Your task to perform on an android device: turn off notifications in google photos Image 0: 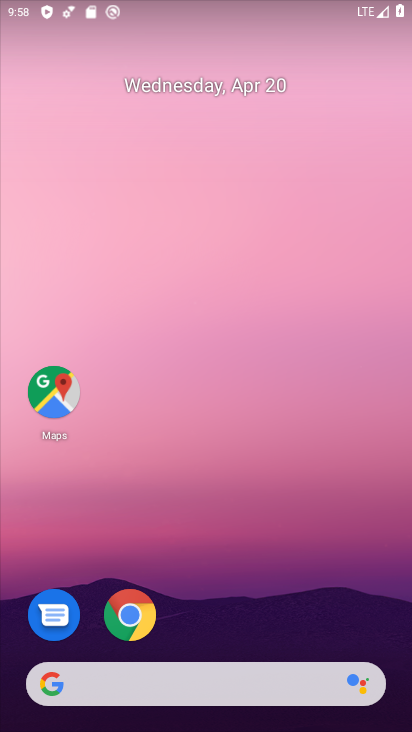
Step 0: drag from (228, 530) to (240, 16)
Your task to perform on an android device: turn off notifications in google photos Image 1: 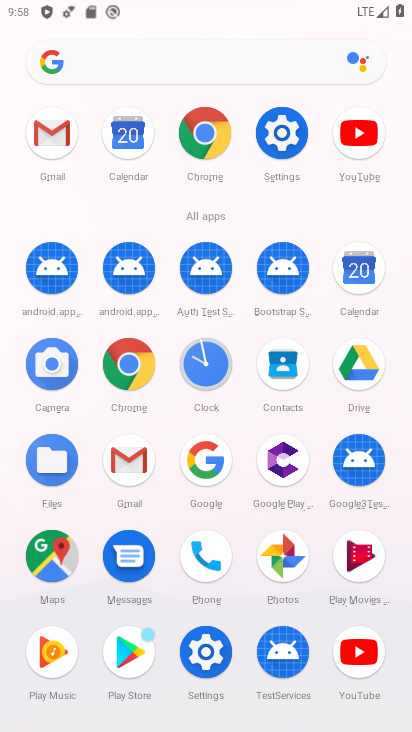
Step 1: click (277, 541)
Your task to perform on an android device: turn off notifications in google photos Image 2: 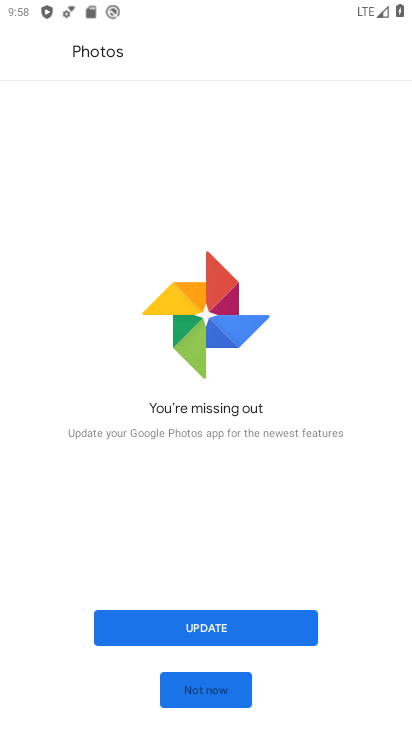
Step 2: click (200, 622)
Your task to perform on an android device: turn off notifications in google photos Image 3: 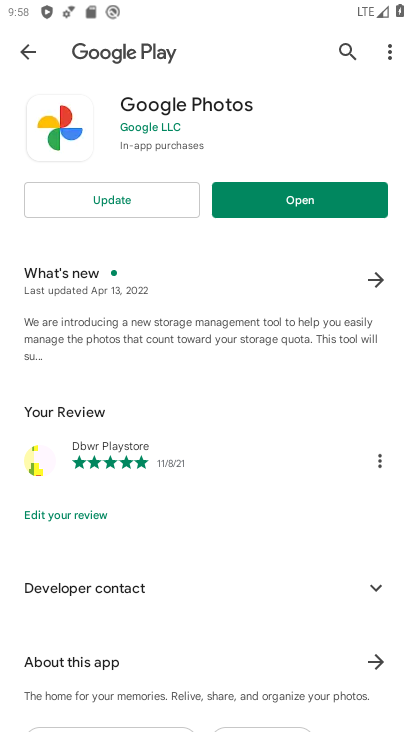
Step 3: drag from (200, 622) to (93, 198)
Your task to perform on an android device: turn off notifications in google photos Image 4: 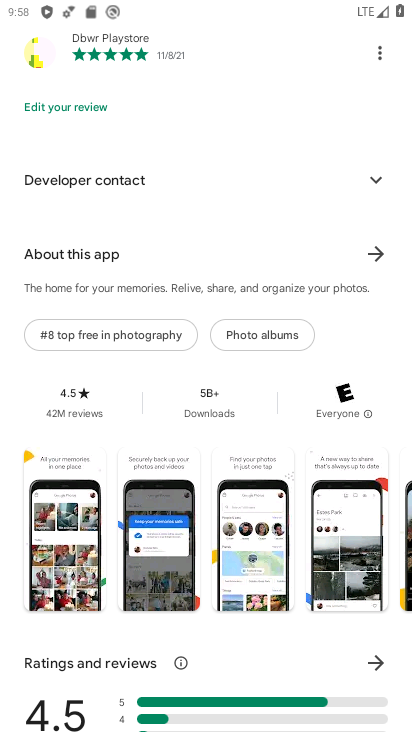
Step 4: drag from (196, 266) to (142, 693)
Your task to perform on an android device: turn off notifications in google photos Image 5: 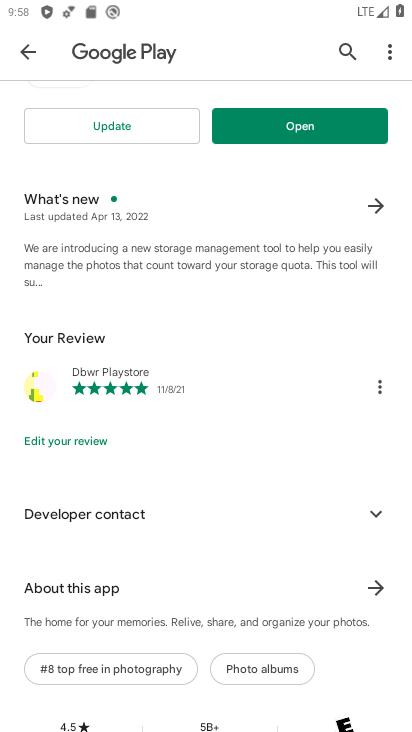
Step 5: click (118, 121)
Your task to perform on an android device: turn off notifications in google photos Image 6: 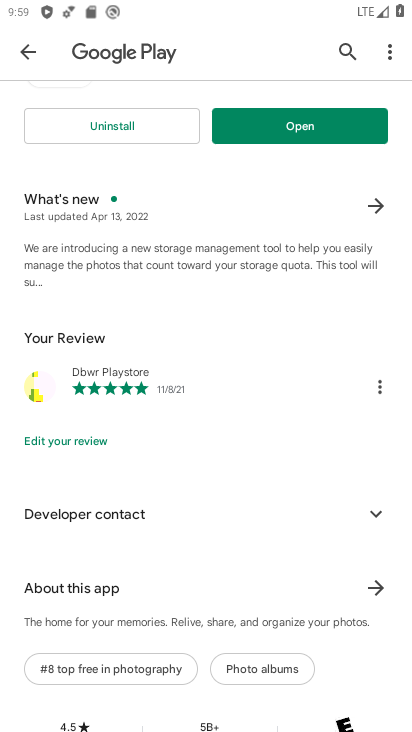
Step 6: click (316, 134)
Your task to perform on an android device: turn off notifications in google photos Image 7: 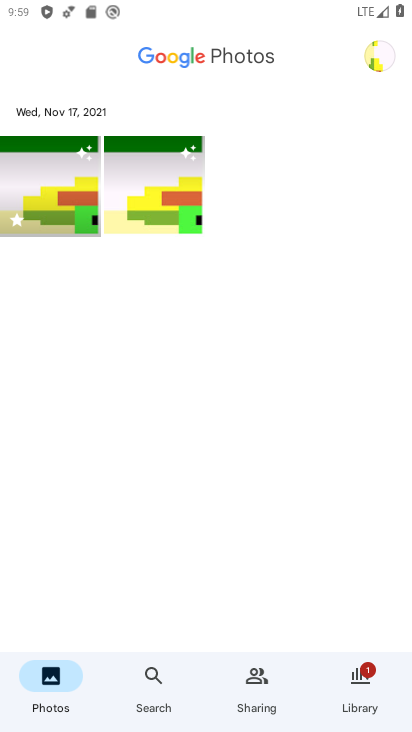
Step 7: click (368, 71)
Your task to perform on an android device: turn off notifications in google photos Image 8: 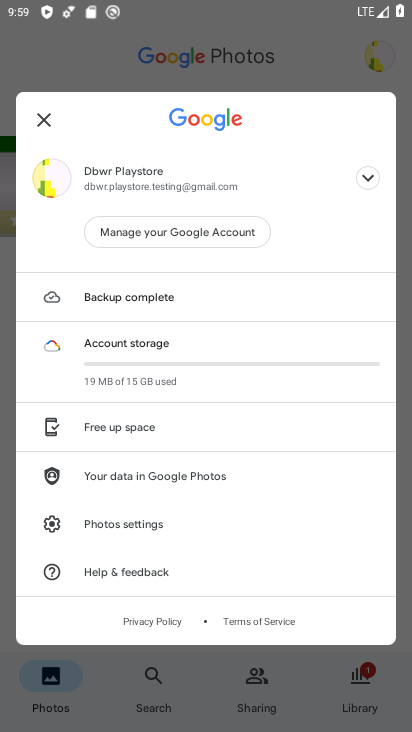
Step 8: click (226, 521)
Your task to perform on an android device: turn off notifications in google photos Image 9: 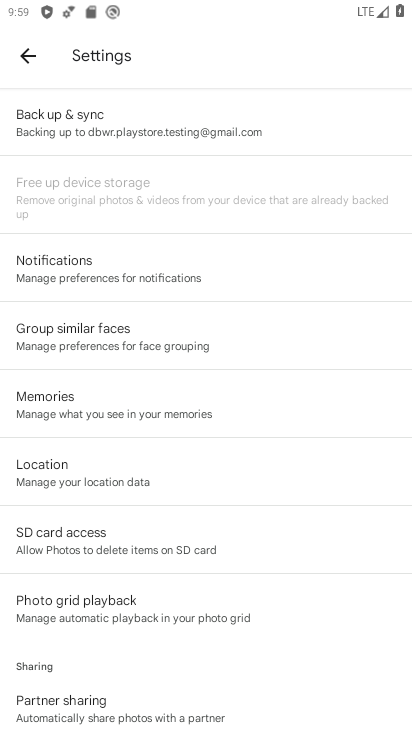
Step 9: click (151, 249)
Your task to perform on an android device: turn off notifications in google photos Image 10: 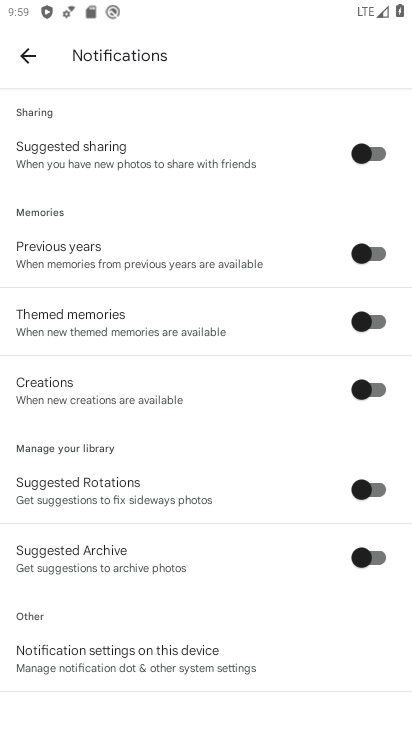
Step 10: click (366, 150)
Your task to perform on an android device: turn off notifications in google photos Image 11: 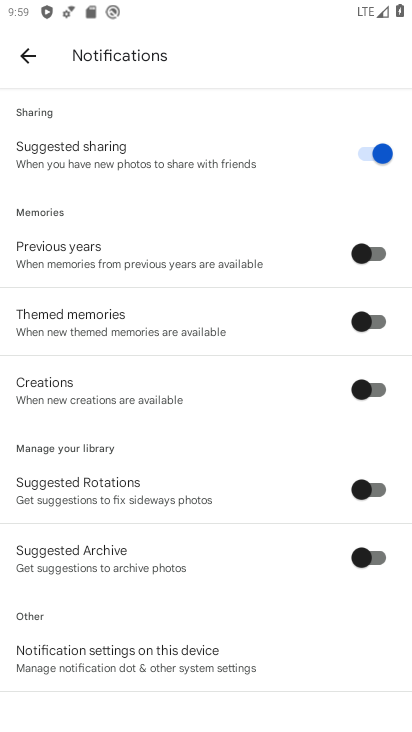
Step 11: click (366, 150)
Your task to perform on an android device: turn off notifications in google photos Image 12: 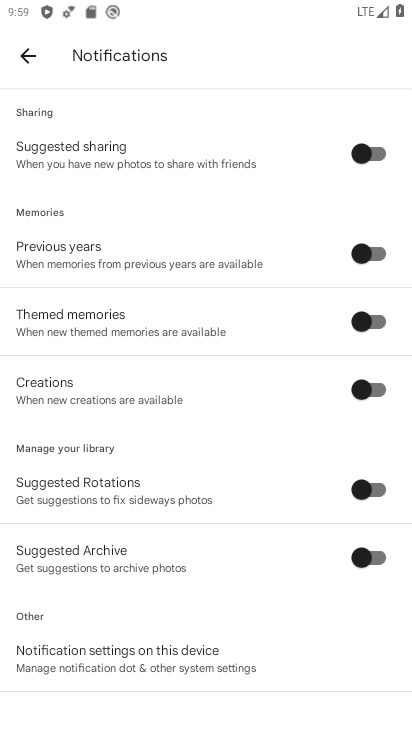
Step 12: task complete